Your task to perform on an android device: View the shopping cart on target.com. Image 0: 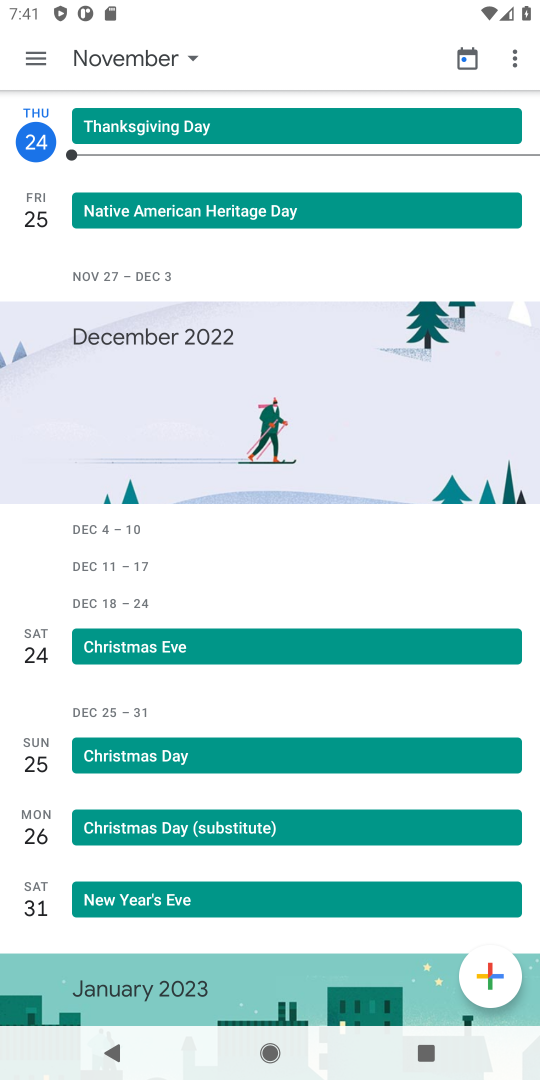
Step 0: press home button
Your task to perform on an android device: View the shopping cart on target.com. Image 1: 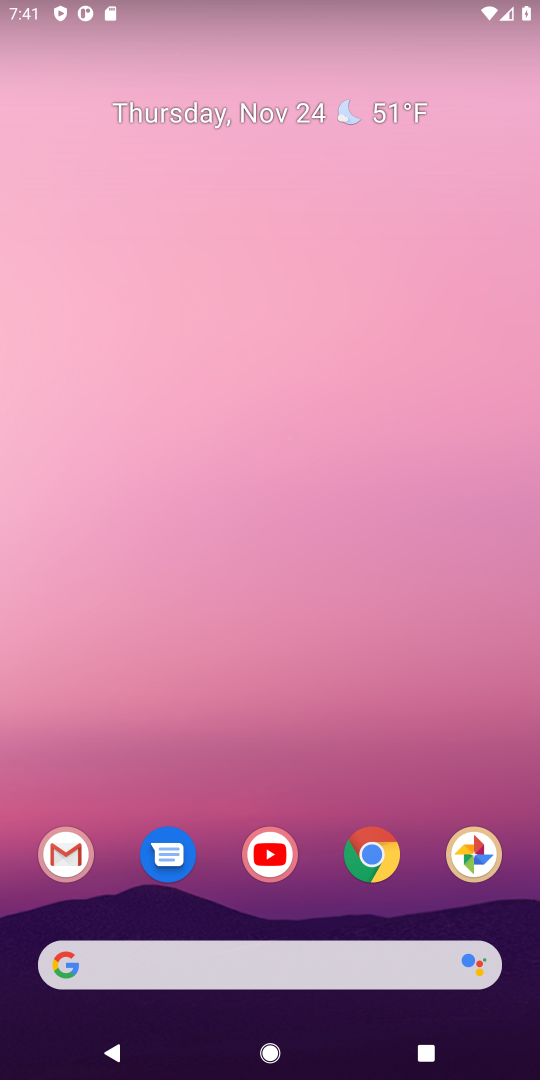
Step 1: click (376, 850)
Your task to perform on an android device: View the shopping cart on target.com. Image 2: 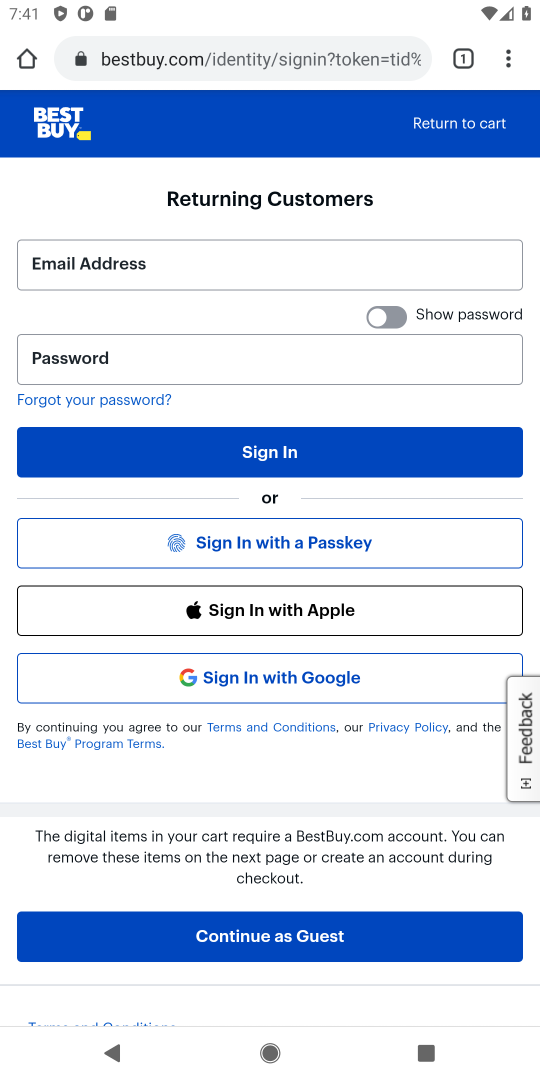
Step 2: click (221, 57)
Your task to perform on an android device: View the shopping cart on target.com. Image 3: 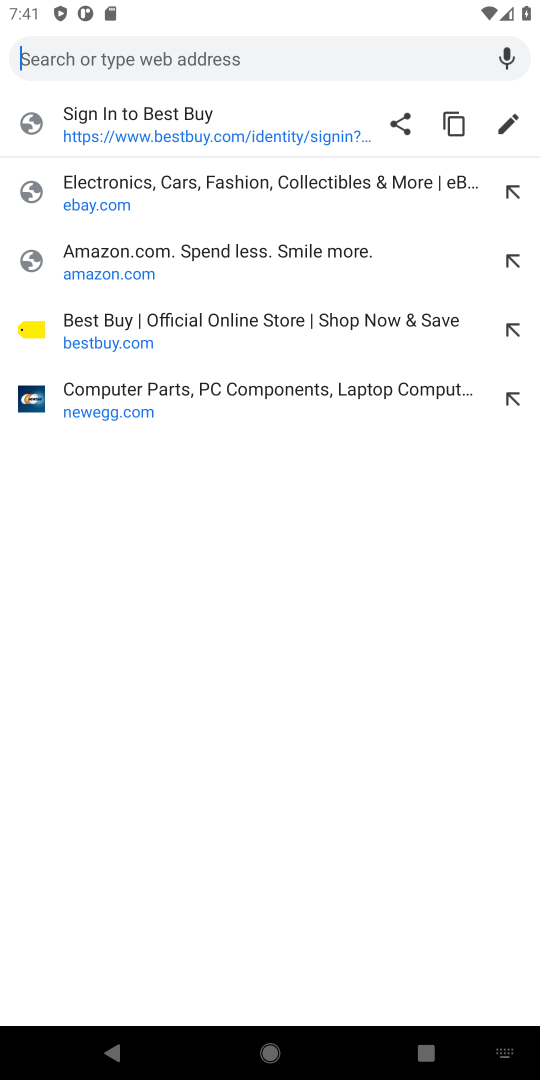
Step 3: type "target.com"
Your task to perform on an android device: View the shopping cart on target.com. Image 4: 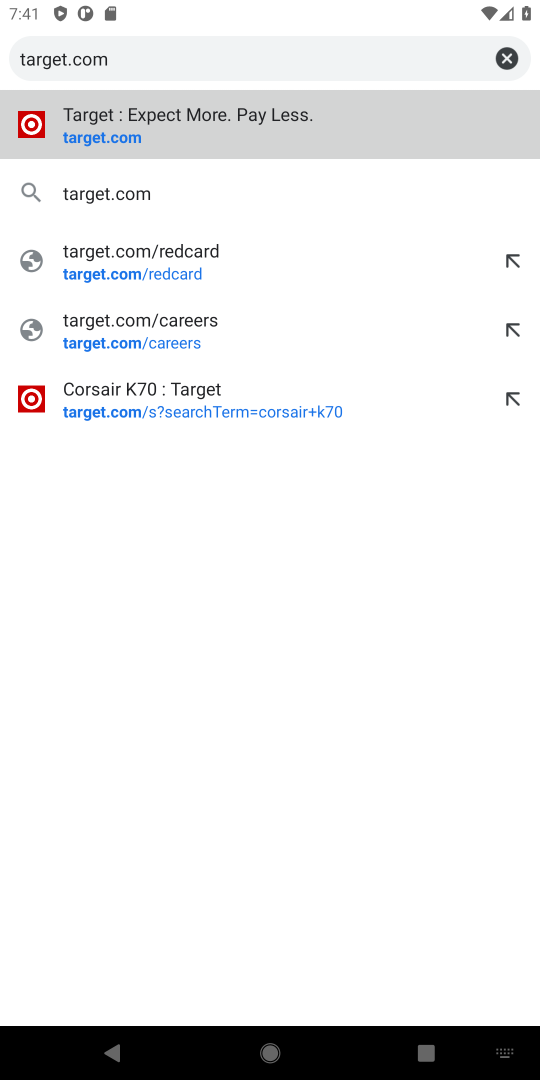
Step 4: click (147, 134)
Your task to perform on an android device: View the shopping cart on target.com. Image 5: 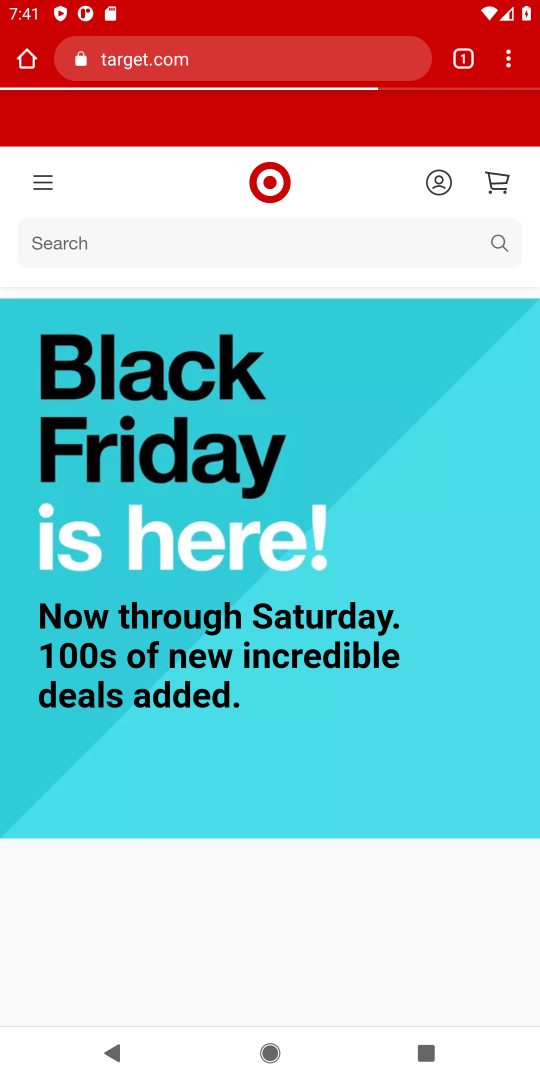
Step 5: click (501, 184)
Your task to perform on an android device: View the shopping cart on target.com. Image 6: 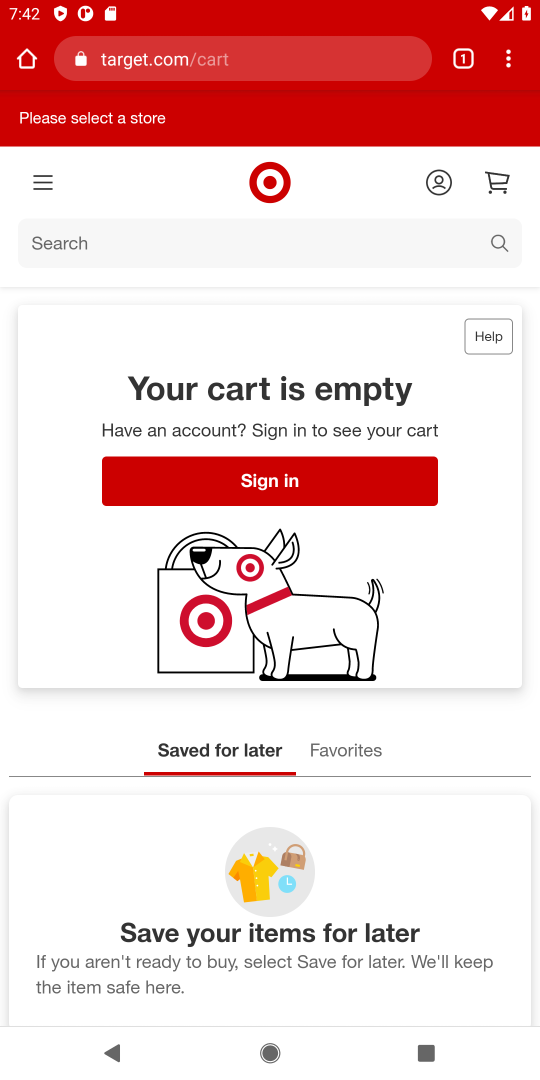
Step 6: task complete